Your task to perform on an android device: Open Chrome and go to settings Image 0: 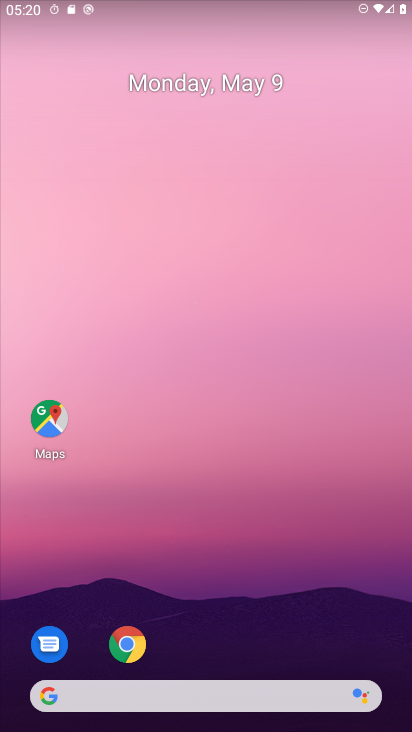
Step 0: click (127, 644)
Your task to perform on an android device: Open Chrome and go to settings Image 1: 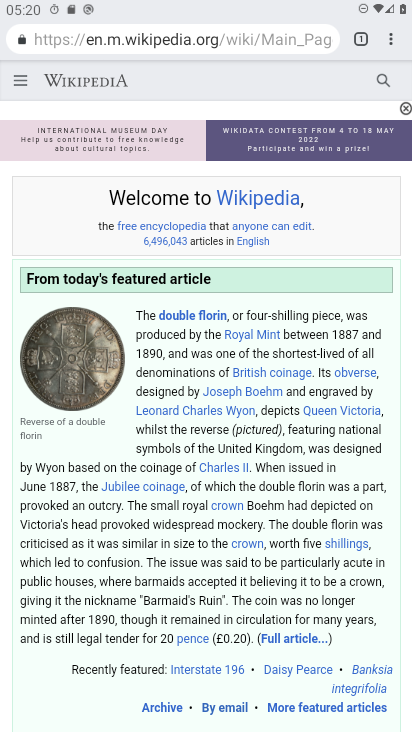
Step 1: click (388, 42)
Your task to perform on an android device: Open Chrome and go to settings Image 2: 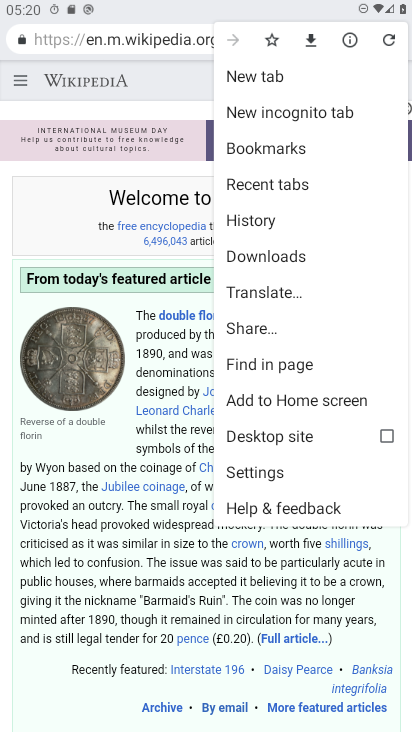
Step 2: click (271, 472)
Your task to perform on an android device: Open Chrome and go to settings Image 3: 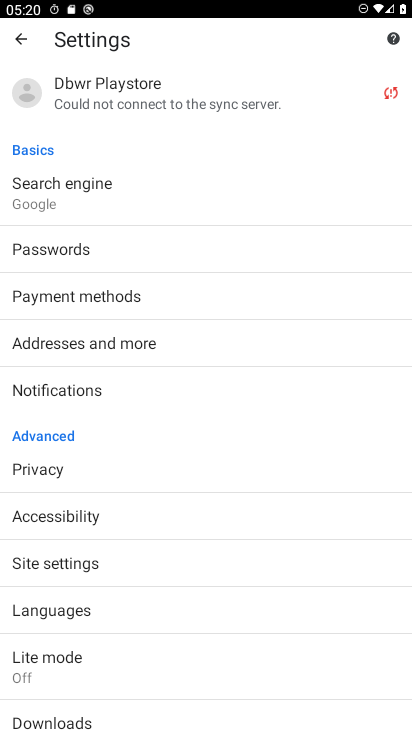
Step 3: task complete